Your task to perform on an android device: change the clock display to show seconds Image 0: 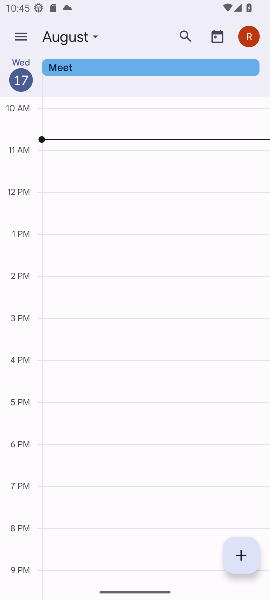
Step 0: press home button
Your task to perform on an android device: change the clock display to show seconds Image 1: 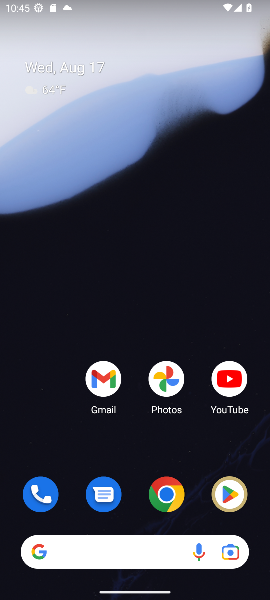
Step 1: drag from (136, 442) to (158, 23)
Your task to perform on an android device: change the clock display to show seconds Image 2: 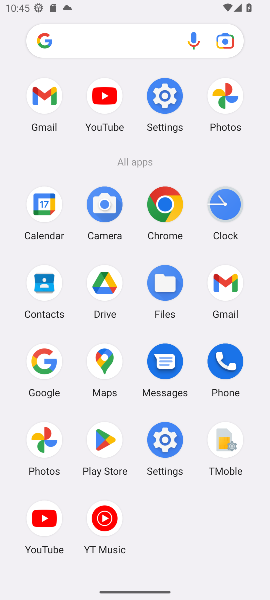
Step 2: click (229, 218)
Your task to perform on an android device: change the clock display to show seconds Image 3: 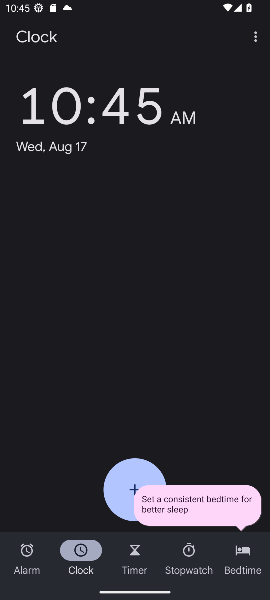
Step 3: click (251, 36)
Your task to perform on an android device: change the clock display to show seconds Image 4: 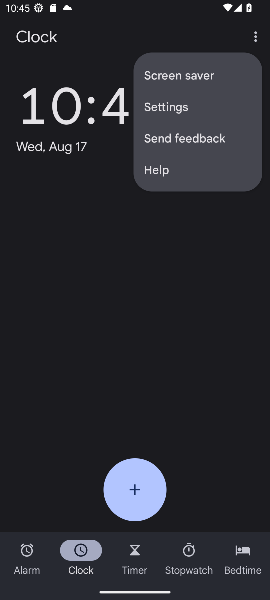
Step 4: click (165, 113)
Your task to perform on an android device: change the clock display to show seconds Image 5: 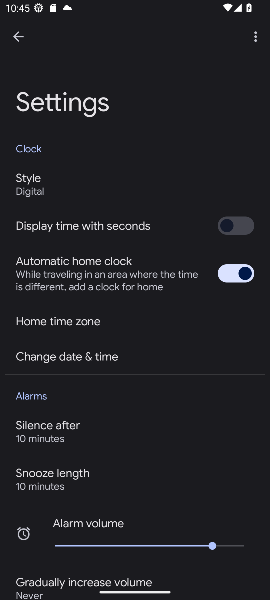
Step 5: click (43, 183)
Your task to perform on an android device: change the clock display to show seconds Image 6: 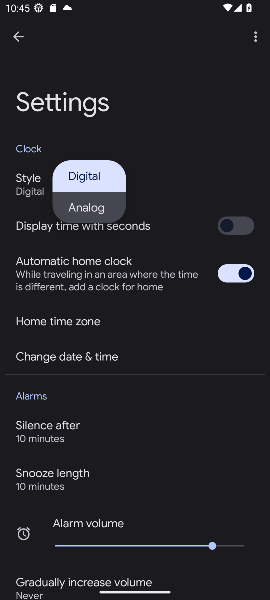
Step 6: click (95, 212)
Your task to perform on an android device: change the clock display to show seconds Image 7: 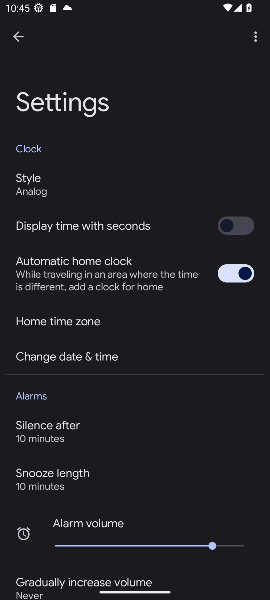
Step 7: task complete